Your task to perform on an android device: Open wifi settings Image 0: 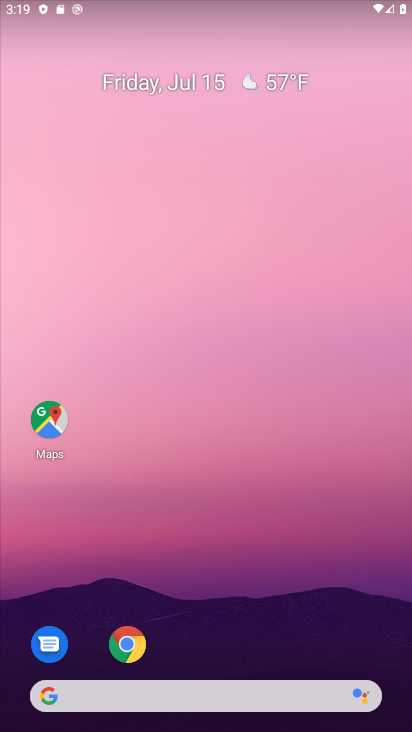
Step 0: drag from (186, 662) to (223, 248)
Your task to perform on an android device: Open wifi settings Image 1: 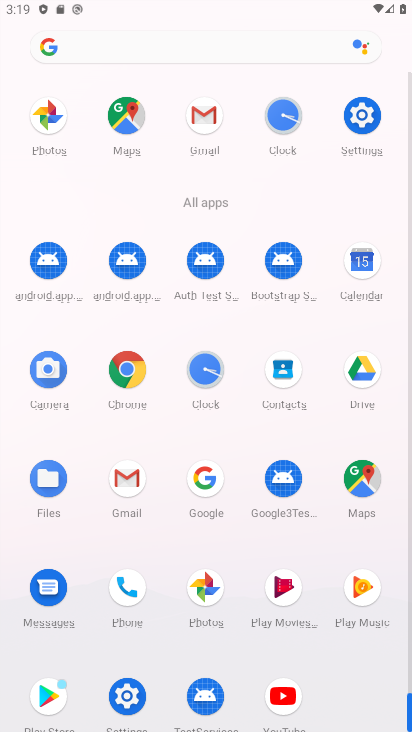
Step 1: click (122, 688)
Your task to perform on an android device: Open wifi settings Image 2: 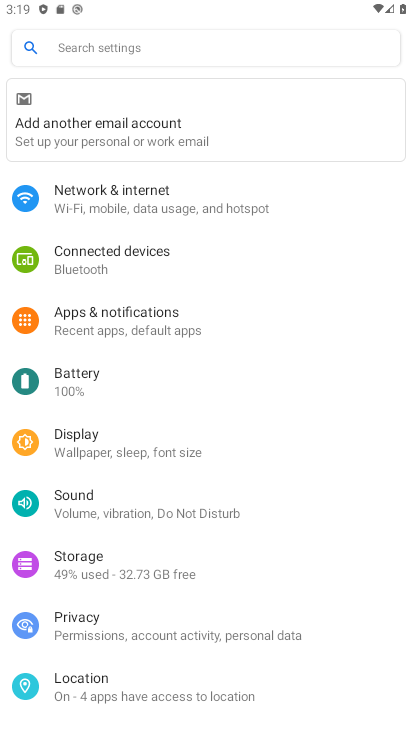
Step 2: click (134, 189)
Your task to perform on an android device: Open wifi settings Image 3: 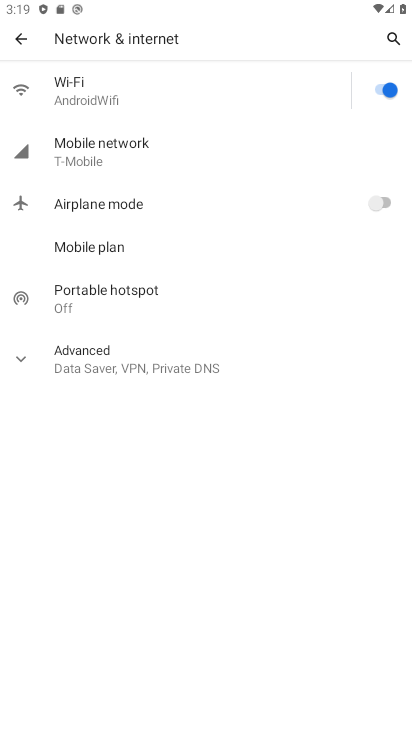
Step 3: click (165, 102)
Your task to perform on an android device: Open wifi settings Image 4: 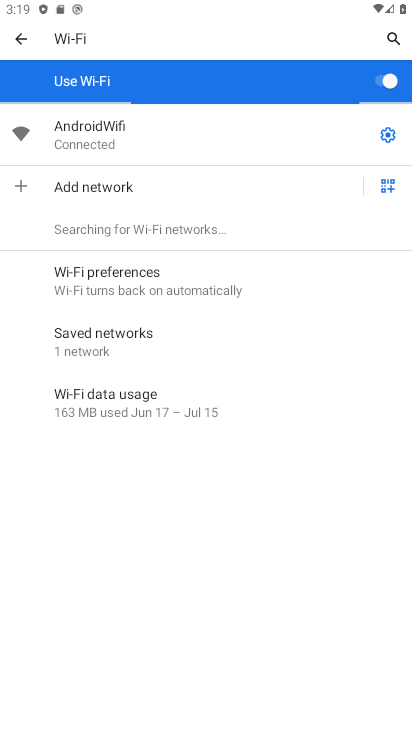
Step 4: task complete